Your task to perform on an android device: open a new tab in the chrome app Image 0: 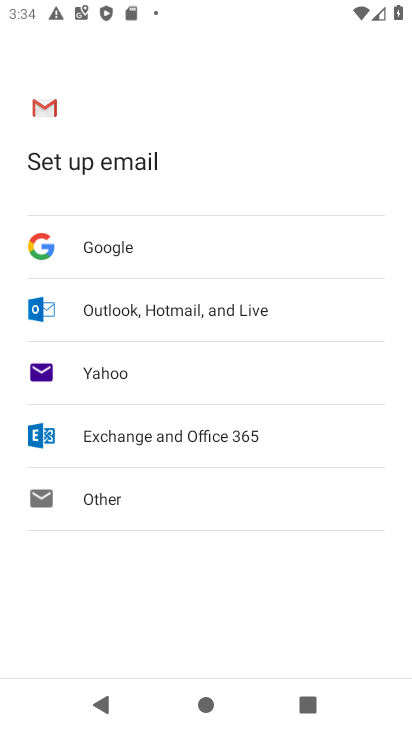
Step 0: press home button
Your task to perform on an android device: open a new tab in the chrome app Image 1: 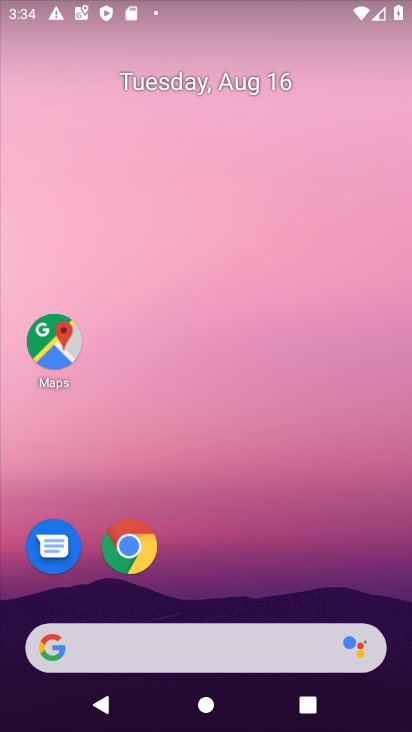
Step 1: drag from (309, 567) to (376, 118)
Your task to perform on an android device: open a new tab in the chrome app Image 2: 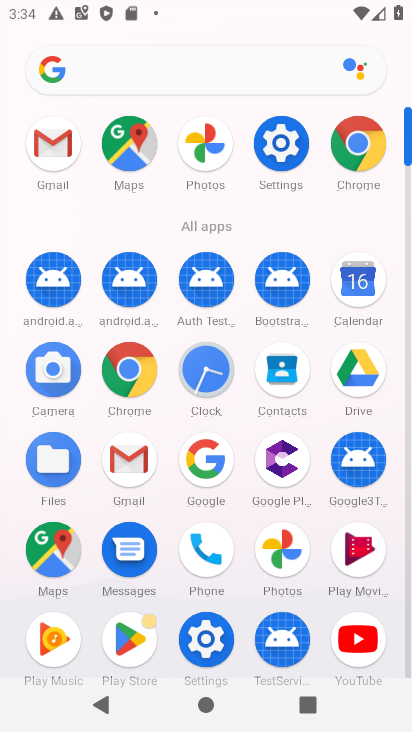
Step 2: click (134, 366)
Your task to perform on an android device: open a new tab in the chrome app Image 3: 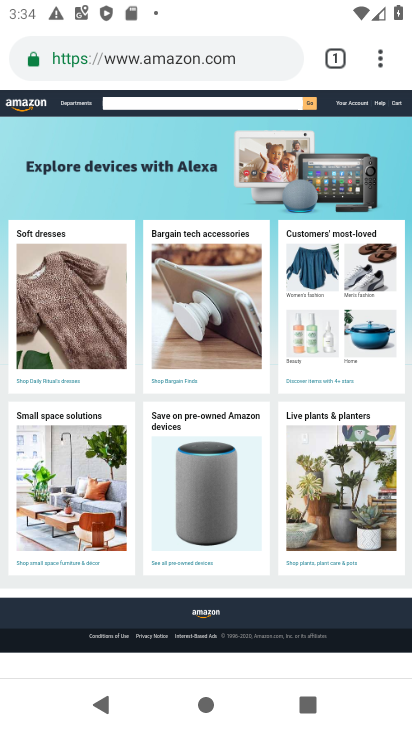
Step 3: click (378, 61)
Your task to perform on an android device: open a new tab in the chrome app Image 4: 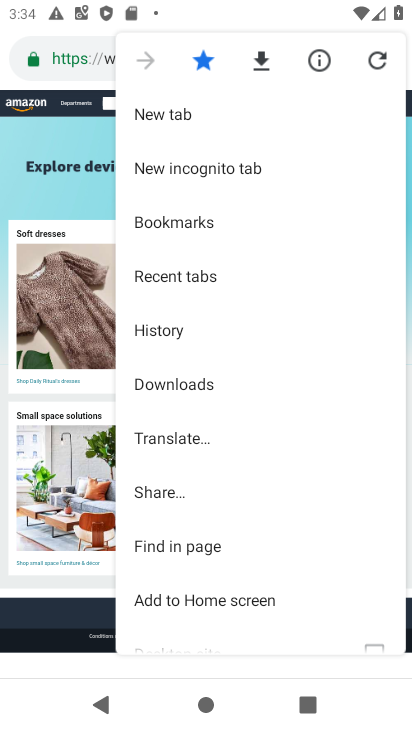
Step 4: click (186, 118)
Your task to perform on an android device: open a new tab in the chrome app Image 5: 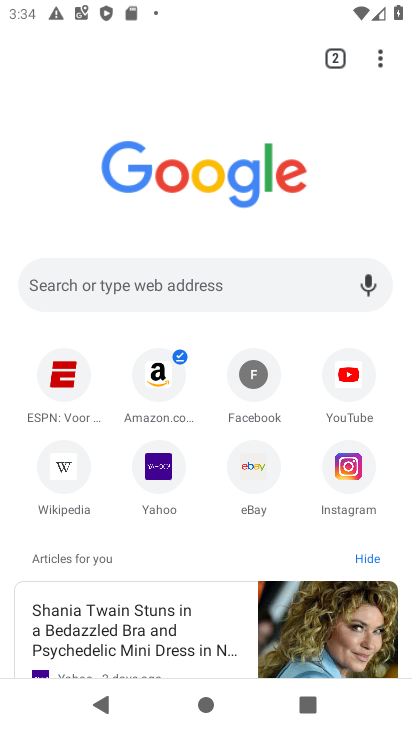
Step 5: task complete